Your task to perform on an android device: turn on priority inbox in the gmail app Image 0: 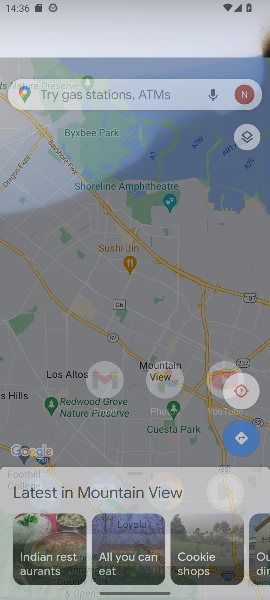
Step 0: press home button
Your task to perform on an android device: turn on priority inbox in the gmail app Image 1: 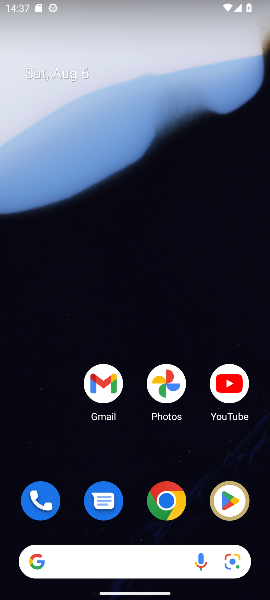
Step 1: drag from (126, 527) to (156, 114)
Your task to perform on an android device: turn on priority inbox in the gmail app Image 2: 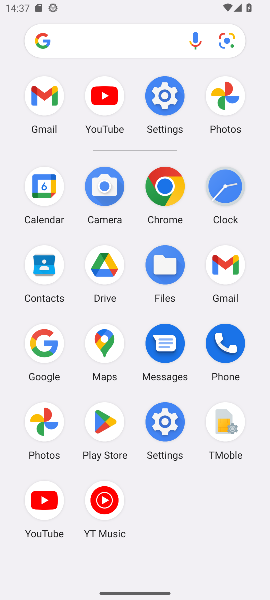
Step 2: click (42, 85)
Your task to perform on an android device: turn on priority inbox in the gmail app Image 3: 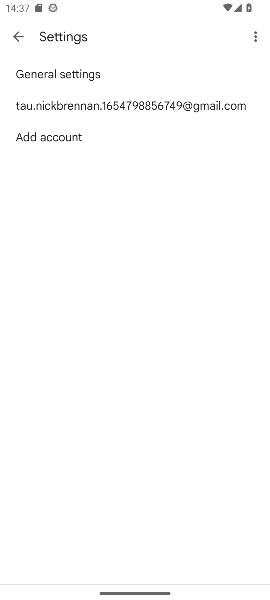
Step 3: click (84, 112)
Your task to perform on an android device: turn on priority inbox in the gmail app Image 4: 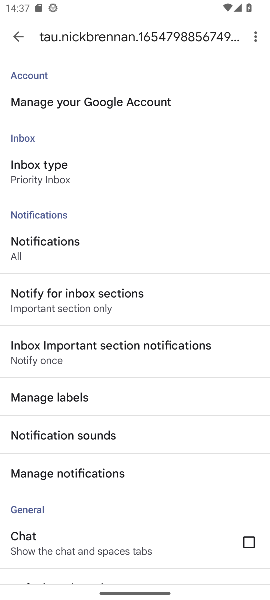
Step 4: click (48, 175)
Your task to perform on an android device: turn on priority inbox in the gmail app Image 5: 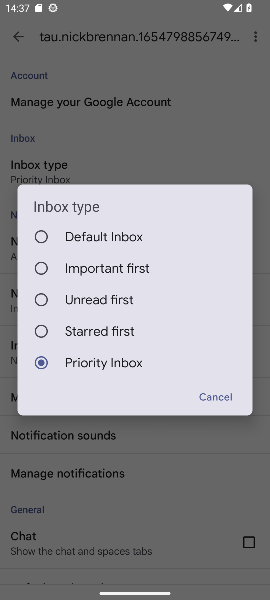
Step 5: task complete